Your task to perform on an android device: toggle notification dots Image 0: 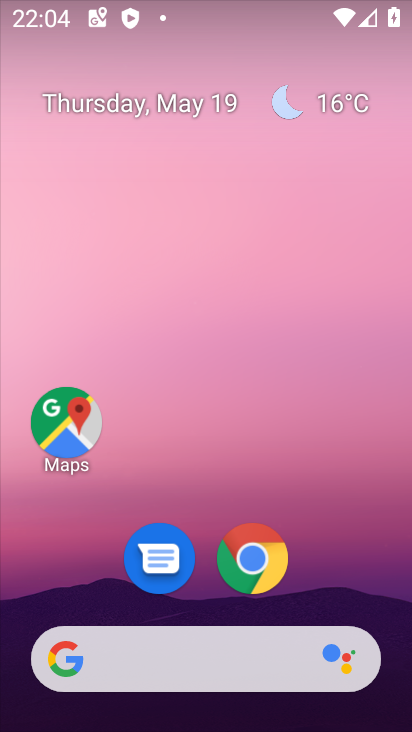
Step 0: drag from (238, 725) to (214, 11)
Your task to perform on an android device: toggle notification dots Image 1: 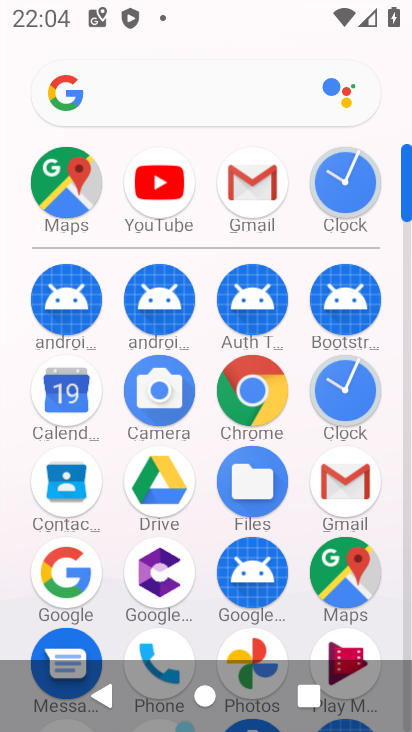
Step 1: drag from (307, 576) to (281, 224)
Your task to perform on an android device: toggle notification dots Image 2: 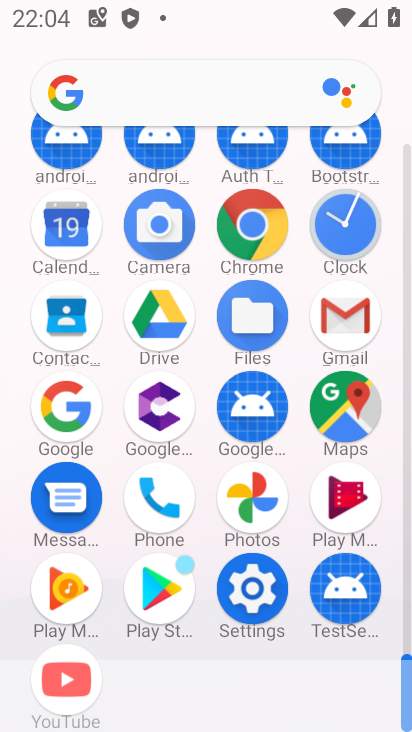
Step 2: click (244, 597)
Your task to perform on an android device: toggle notification dots Image 3: 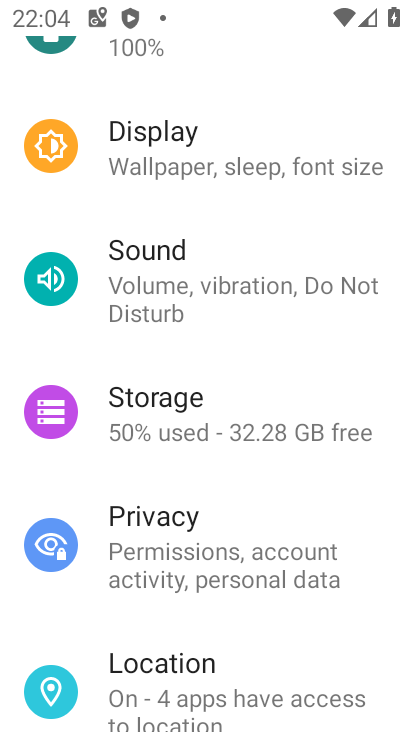
Step 3: drag from (232, 125) to (239, 564)
Your task to perform on an android device: toggle notification dots Image 4: 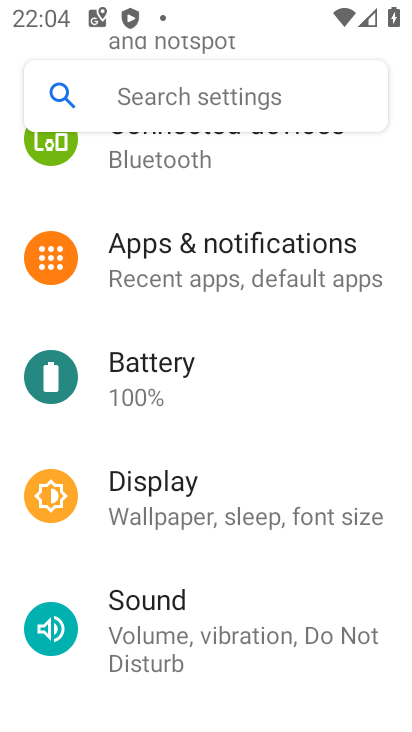
Step 4: click (195, 264)
Your task to perform on an android device: toggle notification dots Image 5: 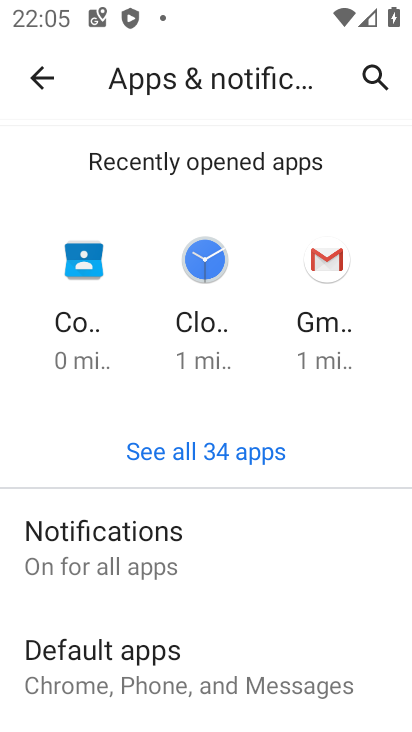
Step 5: click (135, 544)
Your task to perform on an android device: toggle notification dots Image 6: 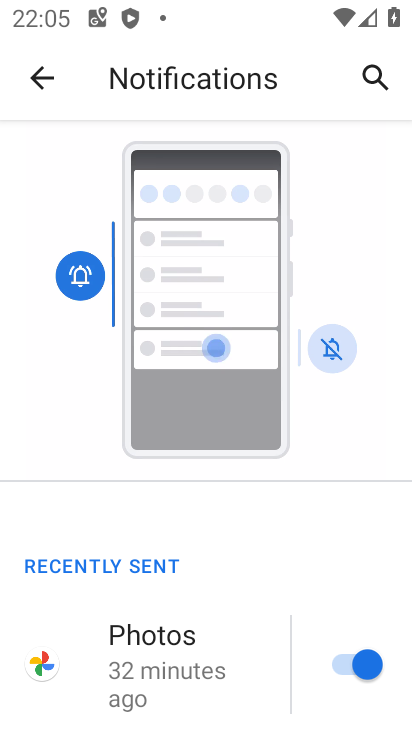
Step 6: drag from (170, 693) to (171, 373)
Your task to perform on an android device: toggle notification dots Image 7: 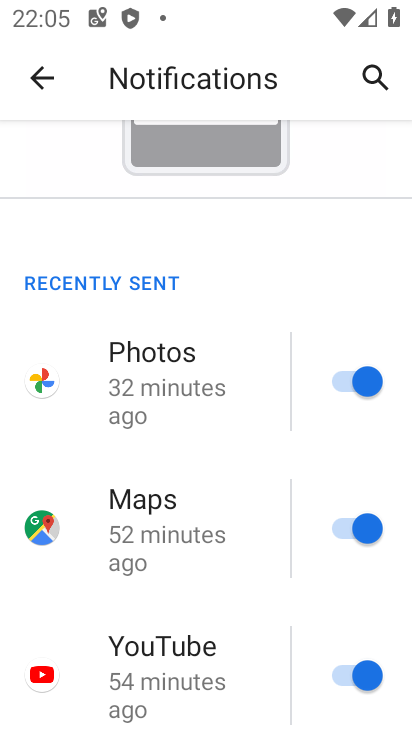
Step 7: drag from (212, 704) to (212, 322)
Your task to perform on an android device: toggle notification dots Image 8: 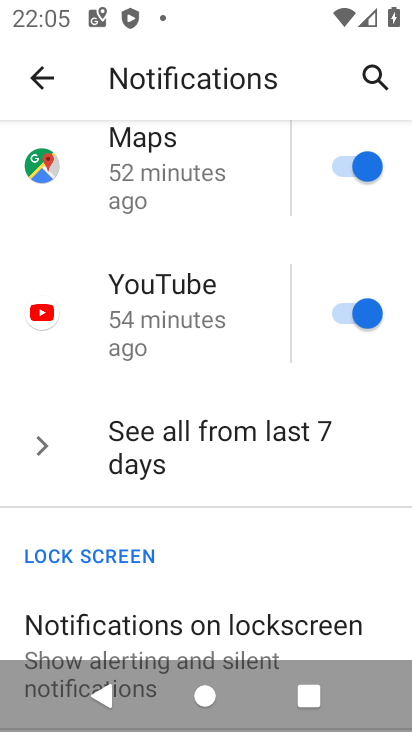
Step 8: drag from (224, 652) to (224, 278)
Your task to perform on an android device: toggle notification dots Image 9: 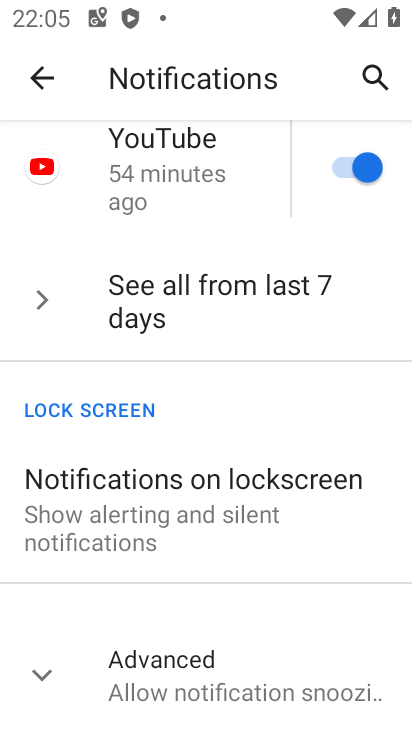
Step 9: click (171, 657)
Your task to perform on an android device: toggle notification dots Image 10: 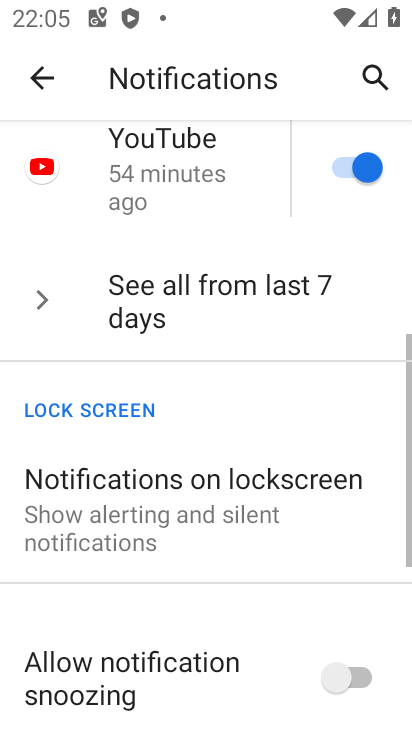
Step 10: drag from (198, 689) to (200, 358)
Your task to perform on an android device: toggle notification dots Image 11: 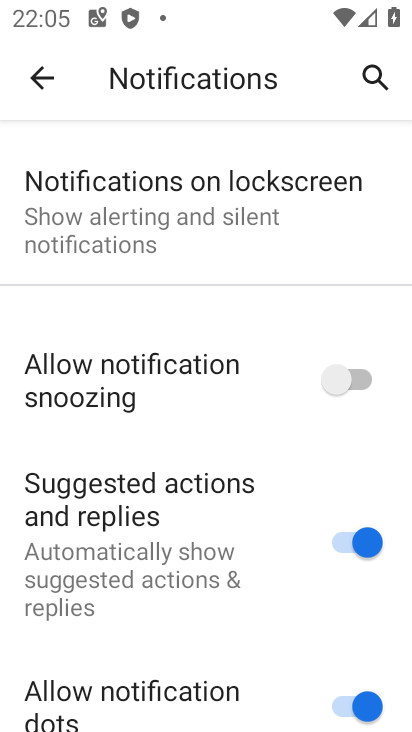
Step 11: drag from (224, 615) to (219, 280)
Your task to perform on an android device: toggle notification dots Image 12: 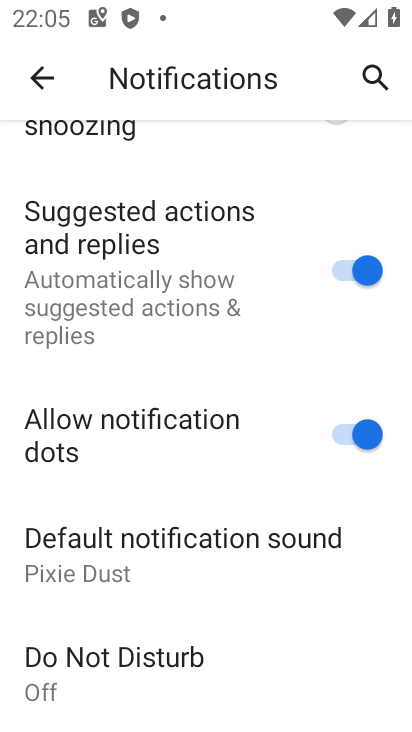
Step 12: click (338, 434)
Your task to perform on an android device: toggle notification dots Image 13: 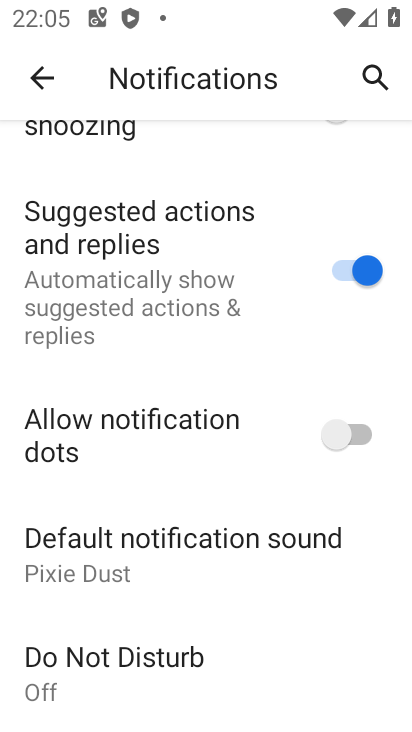
Step 13: task complete